Your task to perform on an android device: Open display settings Image 0: 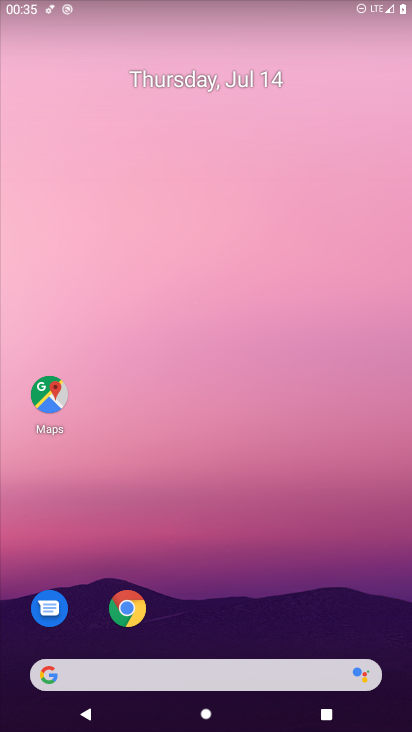
Step 0: press home button
Your task to perform on an android device: Open display settings Image 1: 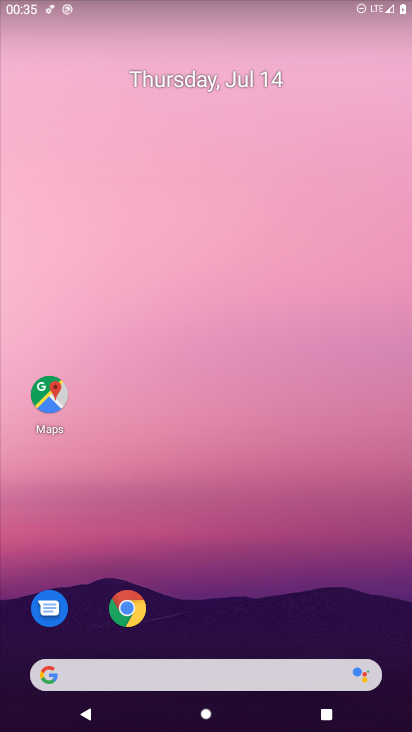
Step 1: drag from (212, 637) to (218, 71)
Your task to perform on an android device: Open display settings Image 2: 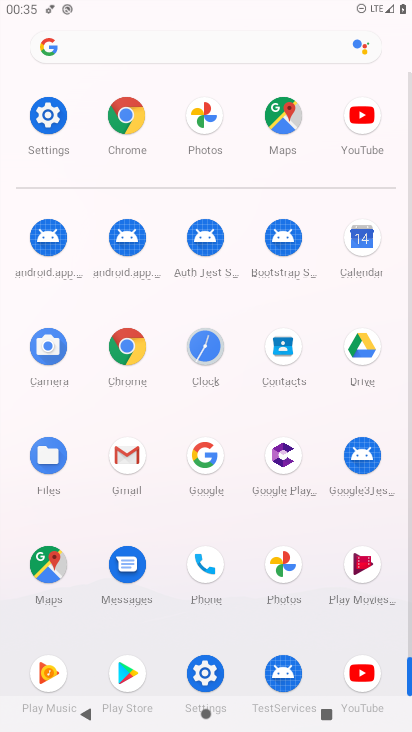
Step 2: click (51, 118)
Your task to perform on an android device: Open display settings Image 3: 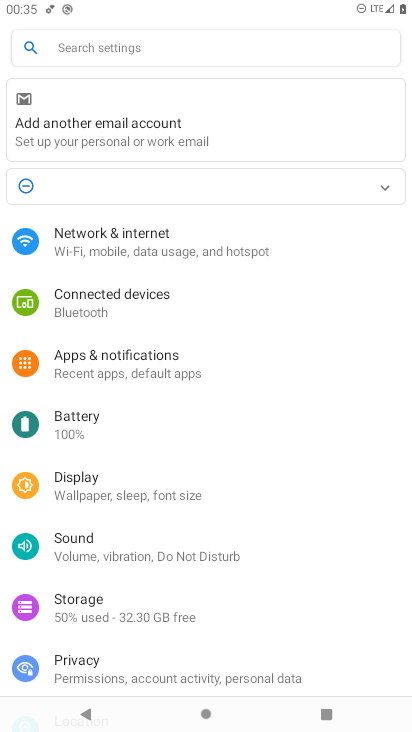
Step 3: click (72, 489)
Your task to perform on an android device: Open display settings Image 4: 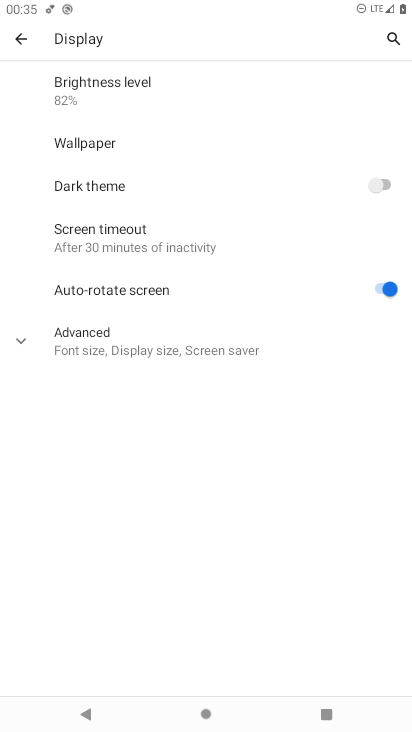
Step 4: task complete